Your task to perform on an android device: turn on javascript in the chrome app Image 0: 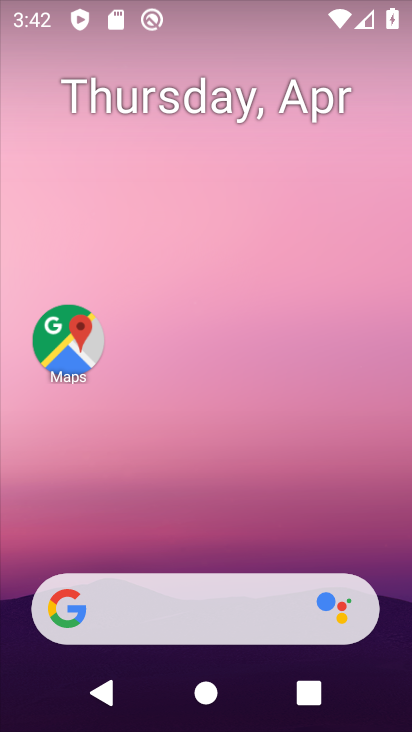
Step 0: drag from (213, 611) to (188, 173)
Your task to perform on an android device: turn on javascript in the chrome app Image 1: 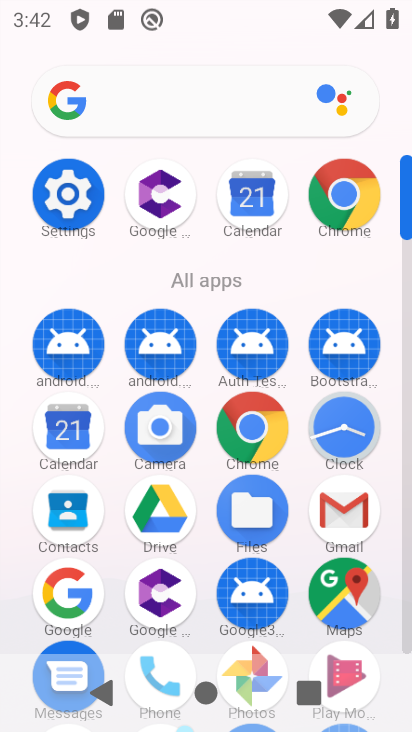
Step 1: click (338, 196)
Your task to perform on an android device: turn on javascript in the chrome app Image 2: 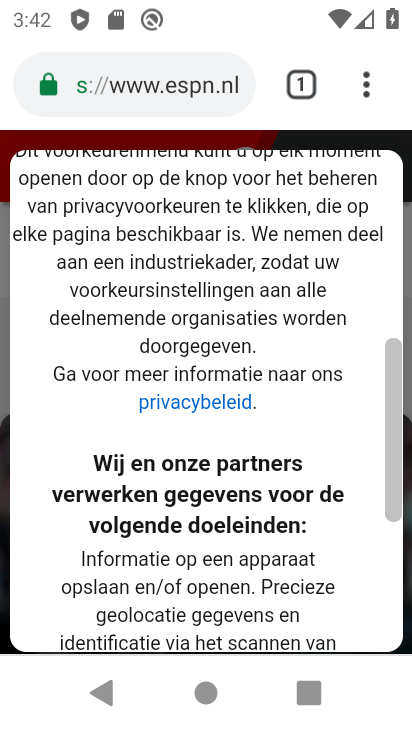
Step 2: drag from (365, 91) to (161, 487)
Your task to perform on an android device: turn on javascript in the chrome app Image 3: 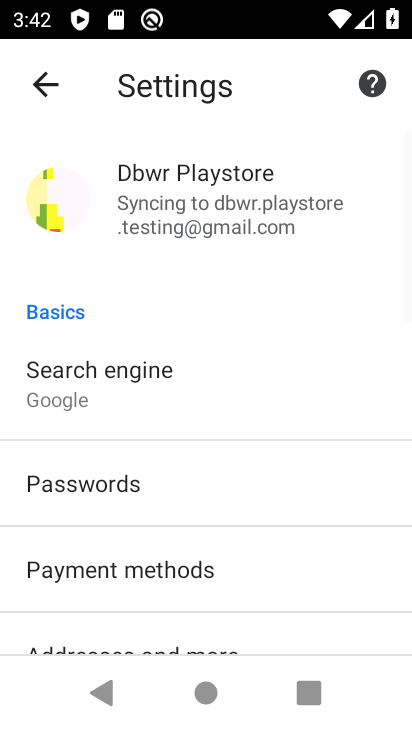
Step 3: drag from (177, 618) to (204, 257)
Your task to perform on an android device: turn on javascript in the chrome app Image 4: 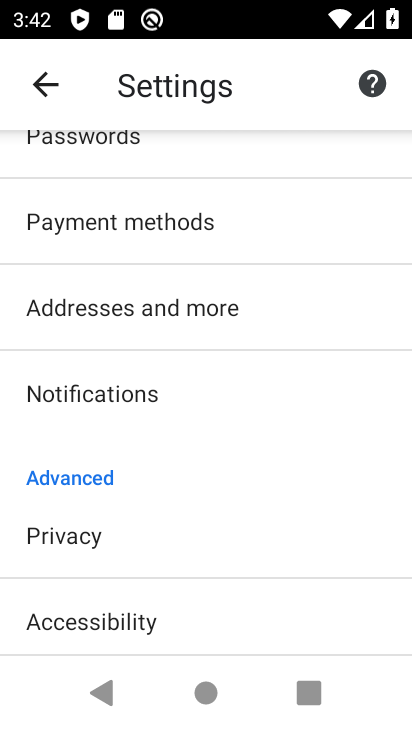
Step 4: drag from (191, 631) to (244, 245)
Your task to perform on an android device: turn on javascript in the chrome app Image 5: 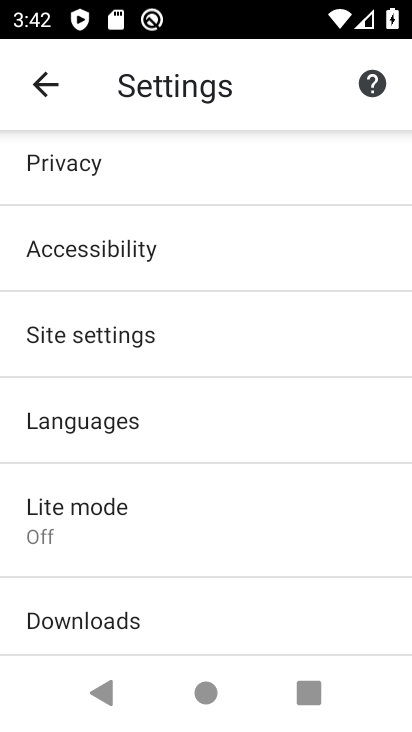
Step 5: click (120, 334)
Your task to perform on an android device: turn on javascript in the chrome app Image 6: 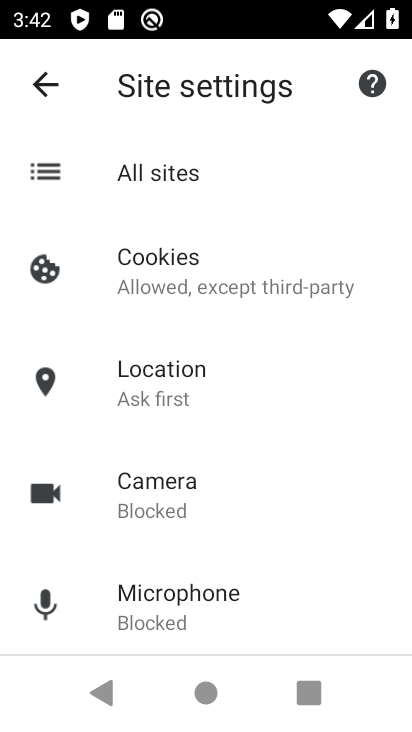
Step 6: drag from (190, 625) to (194, 243)
Your task to perform on an android device: turn on javascript in the chrome app Image 7: 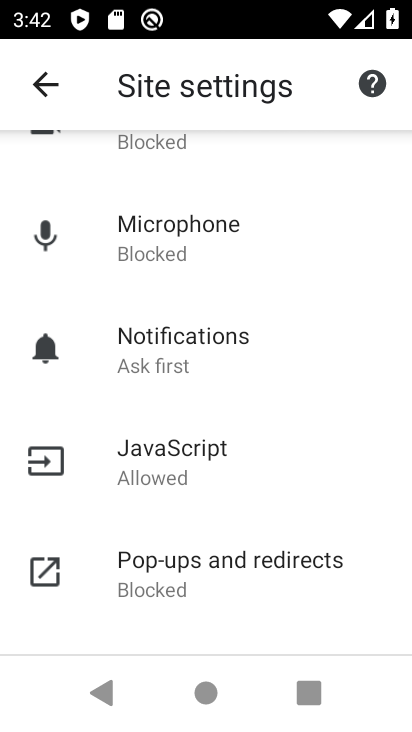
Step 7: click (175, 454)
Your task to perform on an android device: turn on javascript in the chrome app Image 8: 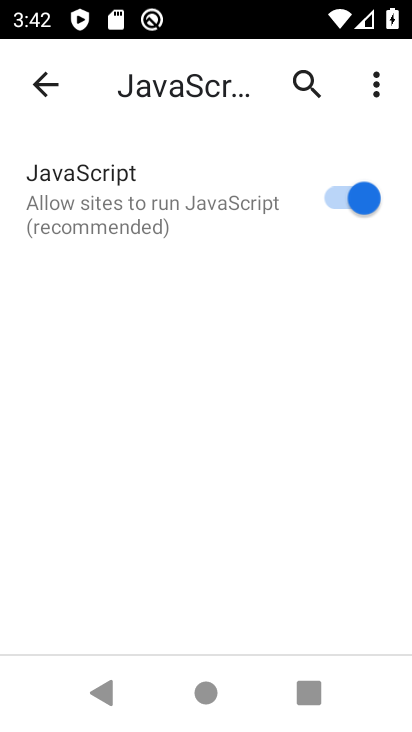
Step 8: task complete